Your task to perform on an android device: see creations saved in the google photos Image 0: 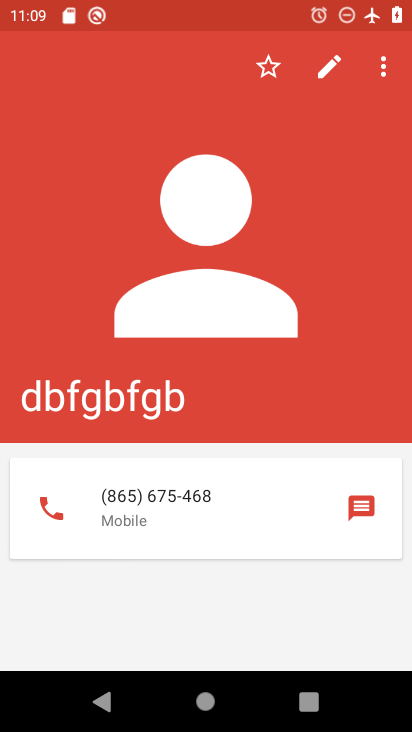
Step 0: press home button
Your task to perform on an android device: see creations saved in the google photos Image 1: 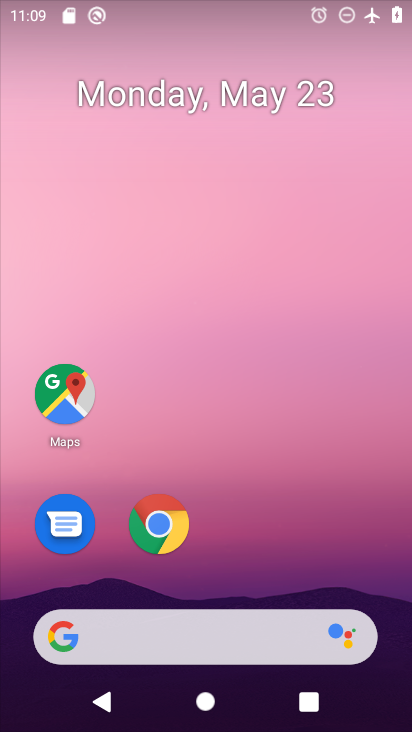
Step 1: drag from (251, 569) to (252, 133)
Your task to perform on an android device: see creations saved in the google photos Image 2: 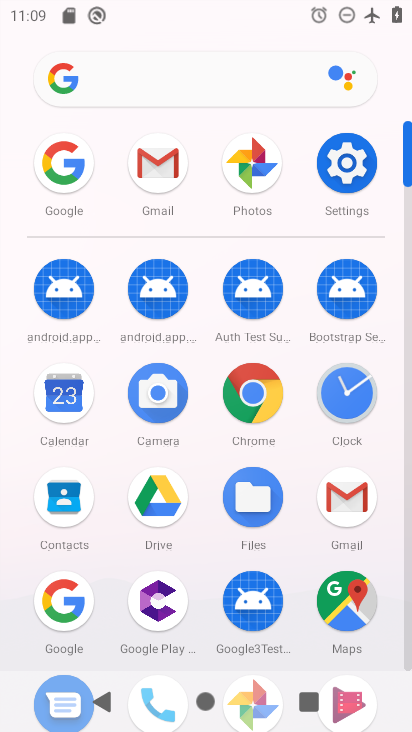
Step 2: click (252, 133)
Your task to perform on an android device: see creations saved in the google photos Image 3: 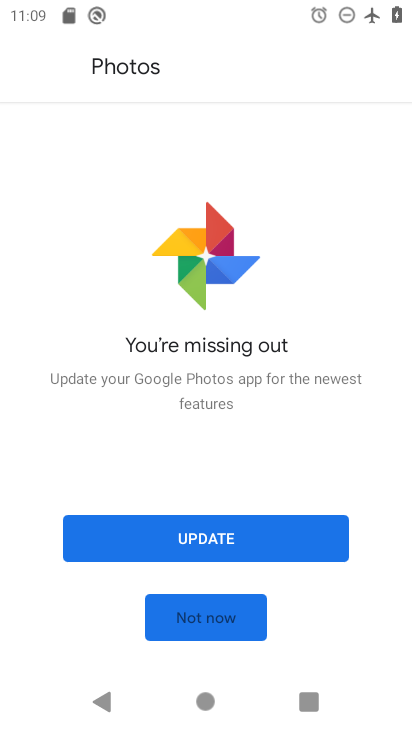
Step 3: click (216, 622)
Your task to perform on an android device: see creations saved in the google photos Image 4: 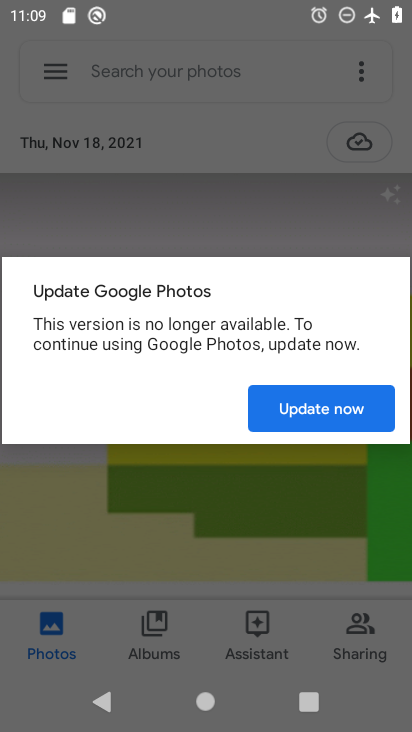
Step 4: click (147, 328)
Your task to perform on an android device: see creations saved in the google photos Image 5: 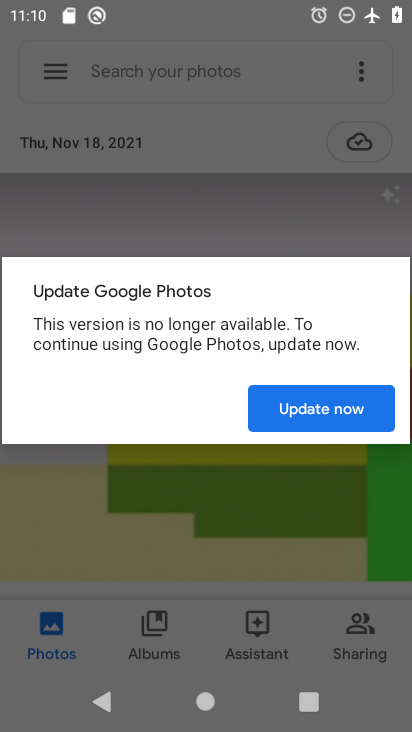
Step 5: press home button
Your task to perform on an android device: see creations saved in the google photos Image 6: 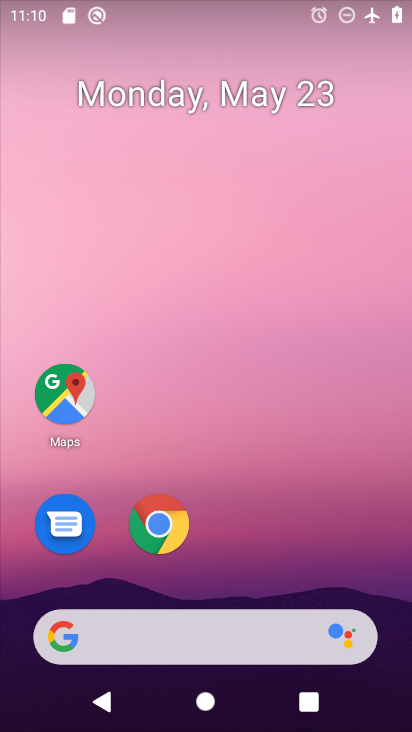
Step 6: drag from (212, 579) to (257, 34)
Your task to perform on an android device: see creations saved in the google photos Image 7: 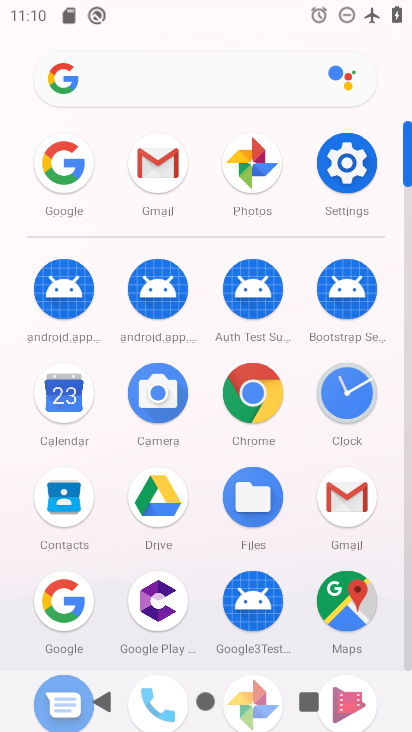
Step 7: click (271, 159)
Your task to perform on an android device: see creations saved in the google photos Image 8: 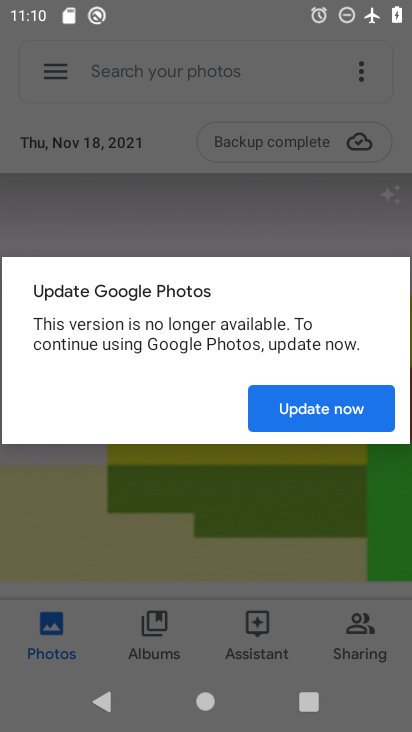
Step 8: click (302, 450)
Your task to perform on an android device: see creations saved in the google photos Image 9: 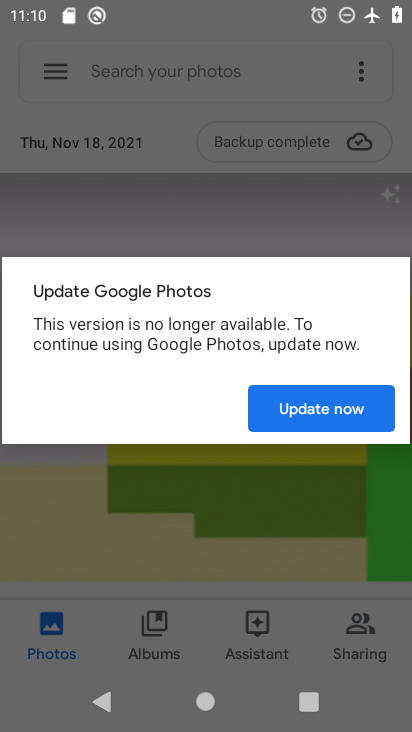
Step 9: click (296, 410)
Your task to perform on an android device: see creations saved in the google photos Image 10: 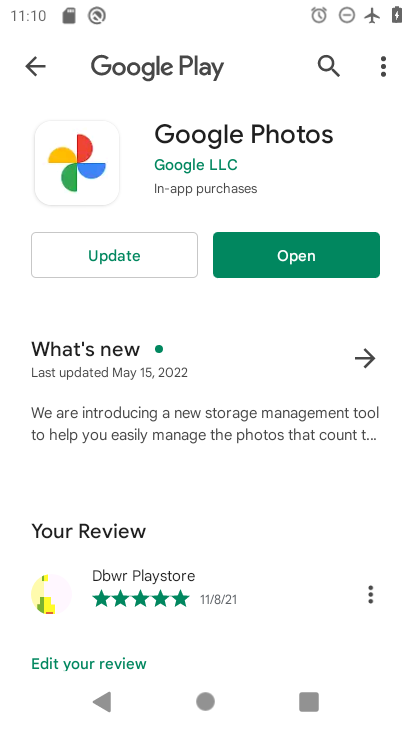
Step 10: click (284, 245)
Your task to perform on an android device: see creations saved in the google photos Image 11: 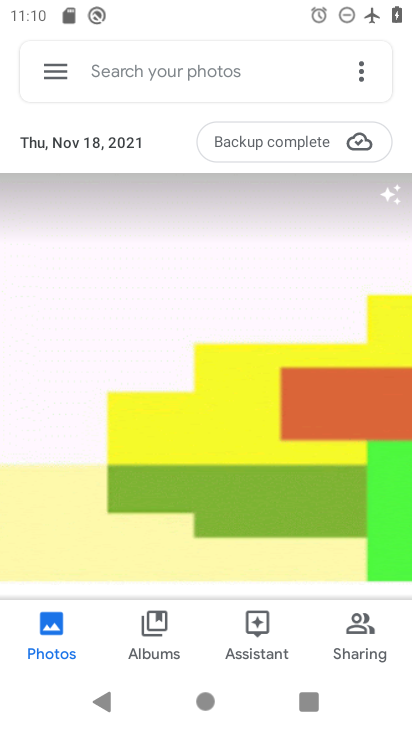
Step 11: click (187, 76)
Your task to perform on an android device: see creations saved in the google photos Image 12: 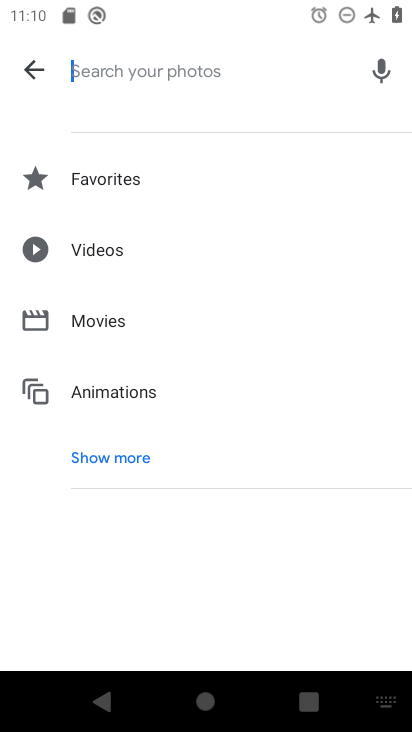
Step 12: click (121, 449)
Your task to perform on an android device: see creations saved in the google photos Image 13: 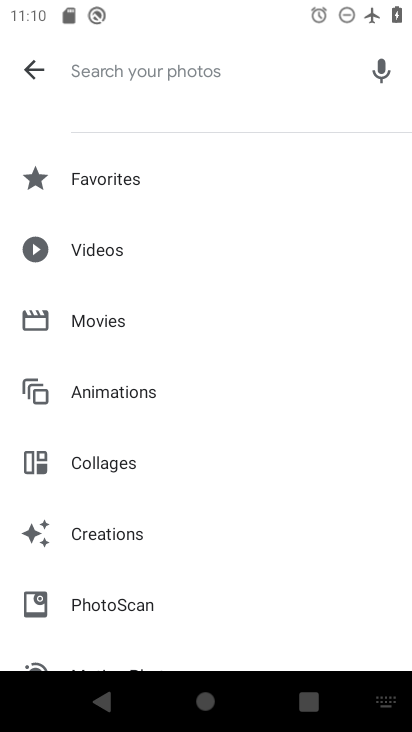
Step 13: click (126, 534)
Your task to perform on an android device: see creations saved in the google photos Image 14: 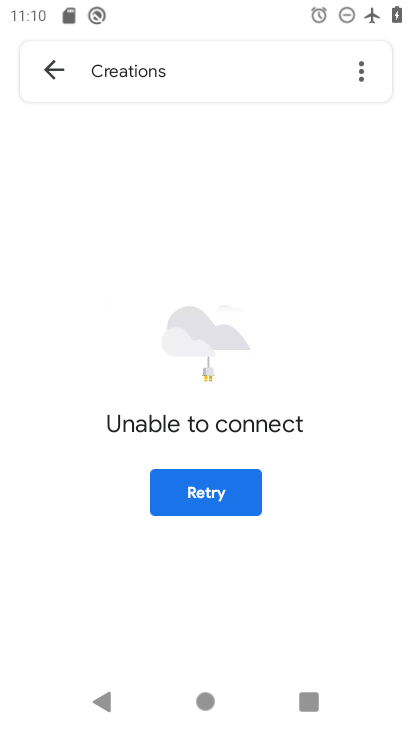
Step 14: task complete